Your task to perform on an android device: Go to settings Image 0: 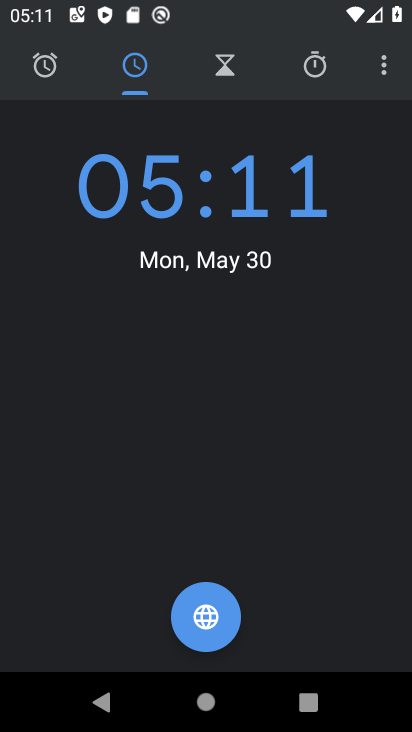
Step 0: press home button
Your task to perform on an android device: Go to settings Image 1: 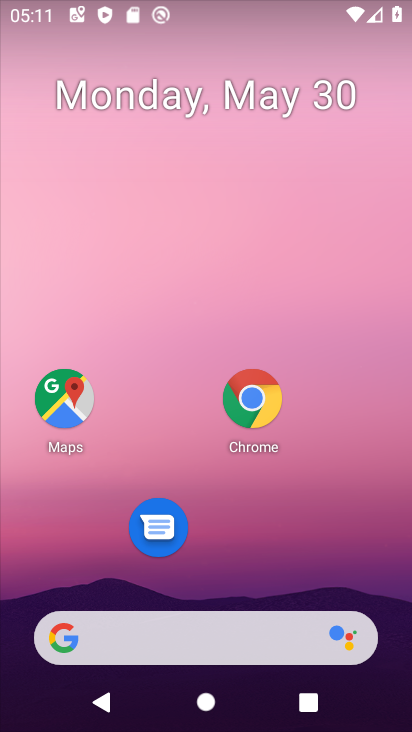
Step 1: drag from (239, 709) to (240, 55)
Your task to perform on an android device: Go to settings Image 2: 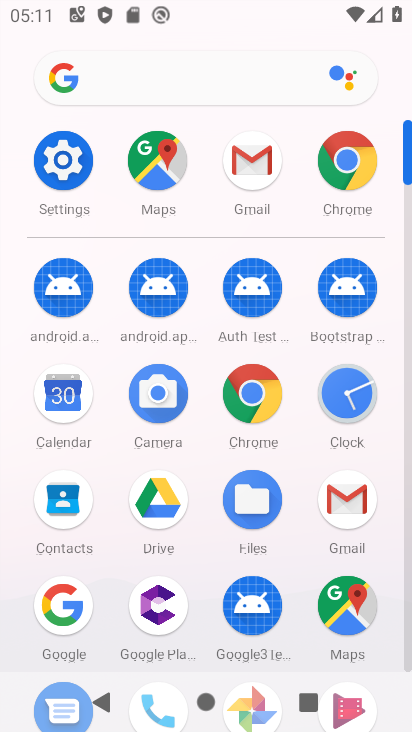
Step 2: click (52, 159)
Your task to perform on an android device: Go to settings Image 3: 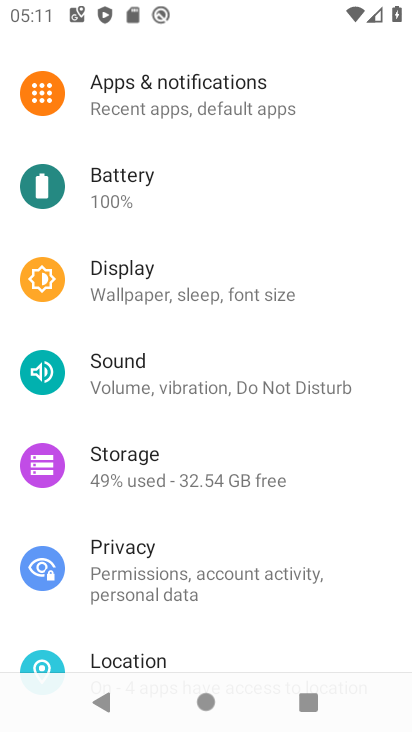
Step 3: task complete